Your task to perform on an android device: turn off wifi Image 0: 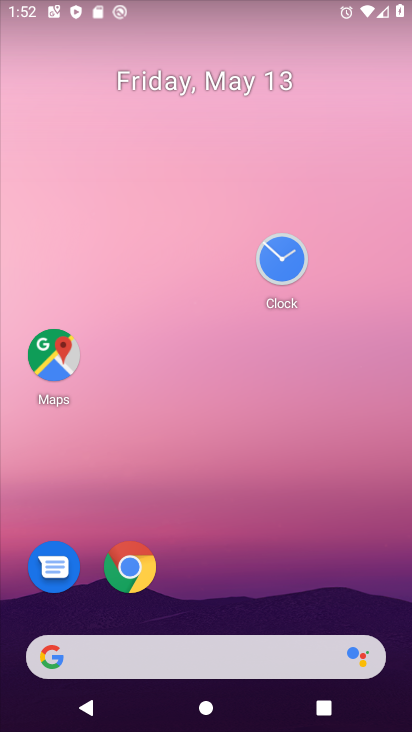
Step 0: drag from (302, 568) to (257, 123)
Your task to perform on an android device: turn off wifi Image 1: 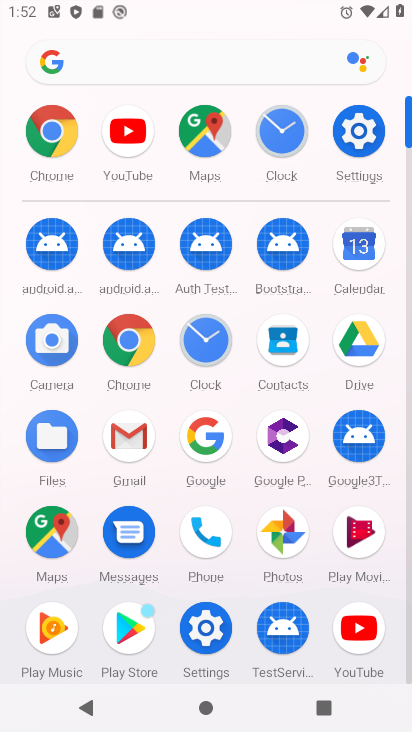
Step 1: click (360, 158)
Your task to perform on an android device: turn off wifi Image 2: 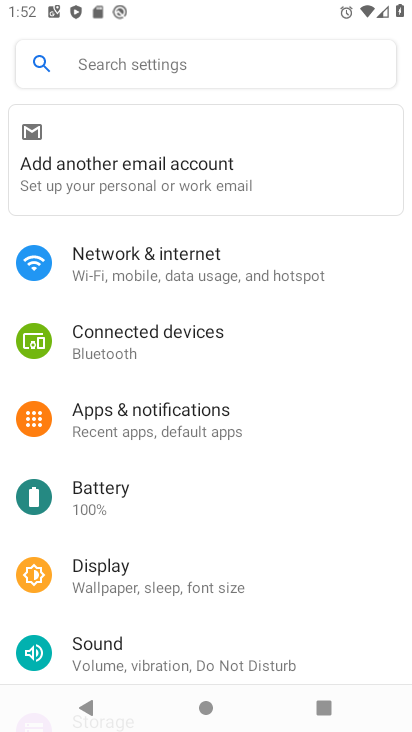
Step 2: click (200, 258)
Your task to perform on an android device: turn off wifi Image 3: 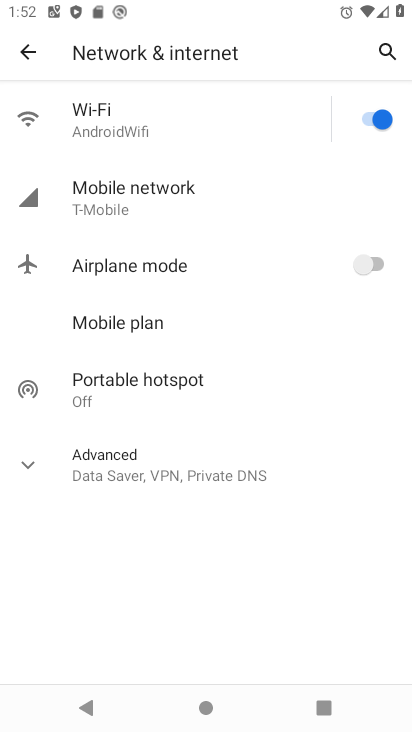
Step 3: click (114, 93)
Your task to perform on an android device: turn off wifi Image 4: 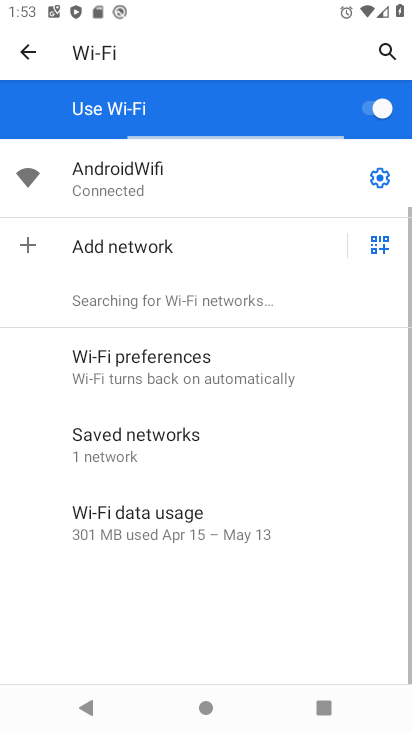
Step 4: task complete